Your task to perform on an android device: find snoozed emails in the gmail app Image 0: 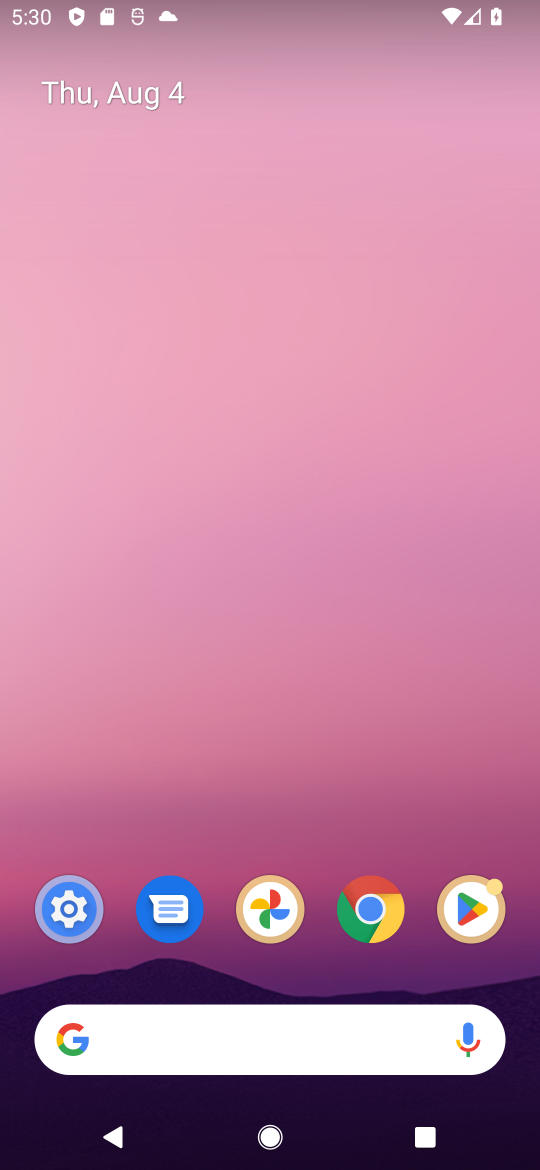
Step 0: drag from (193, 1045) to (363, 230)
Your task to perform on an android device: find snoozed emails in the gmail app Image 1: 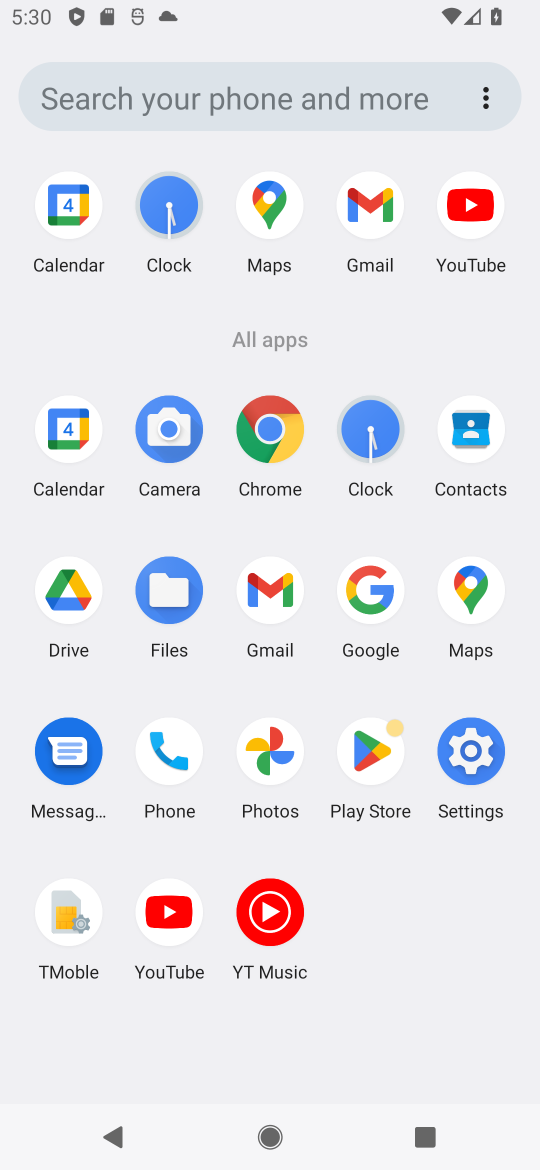
Step 1: click (371, 202)
Your task to perform on an android device: find snoozed emails in the gmail app Image 2: 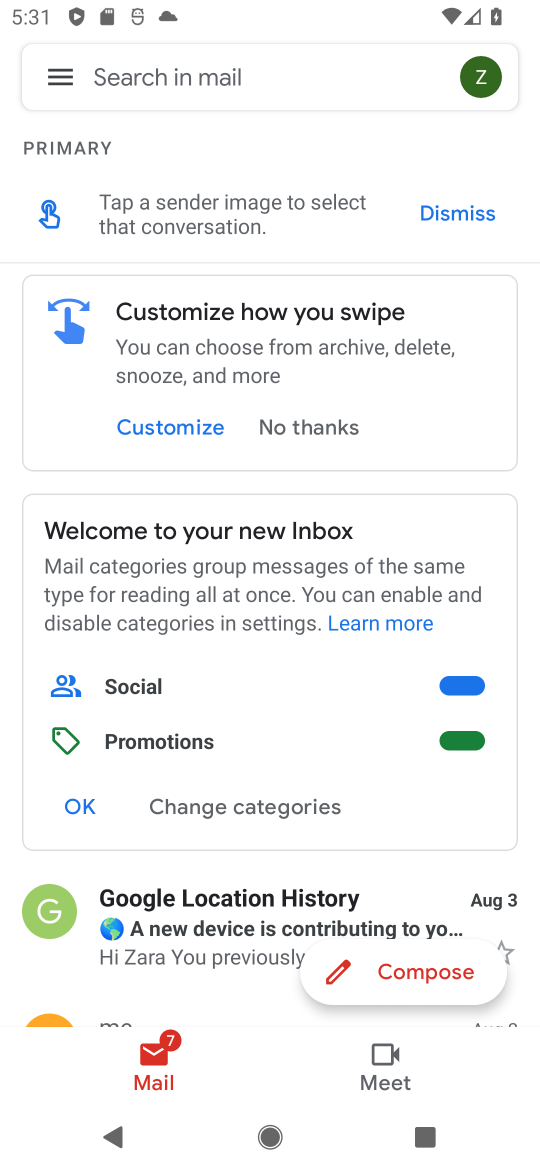
Step 2: drag from (202, 908) to (360, 432)
Your task to perform on an android device: find snoozed emails in the gmail app Image 3: 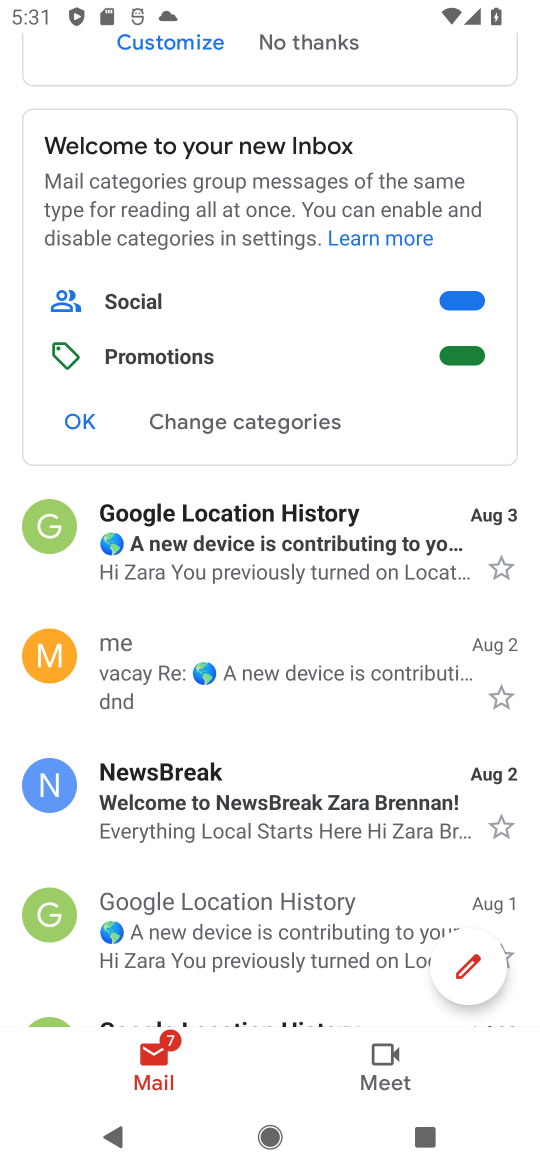
Step 3: drag from (258, 795) to (318, 567)
Your task to perform on an android device: find snoozed emails in the gmail app Image 4: 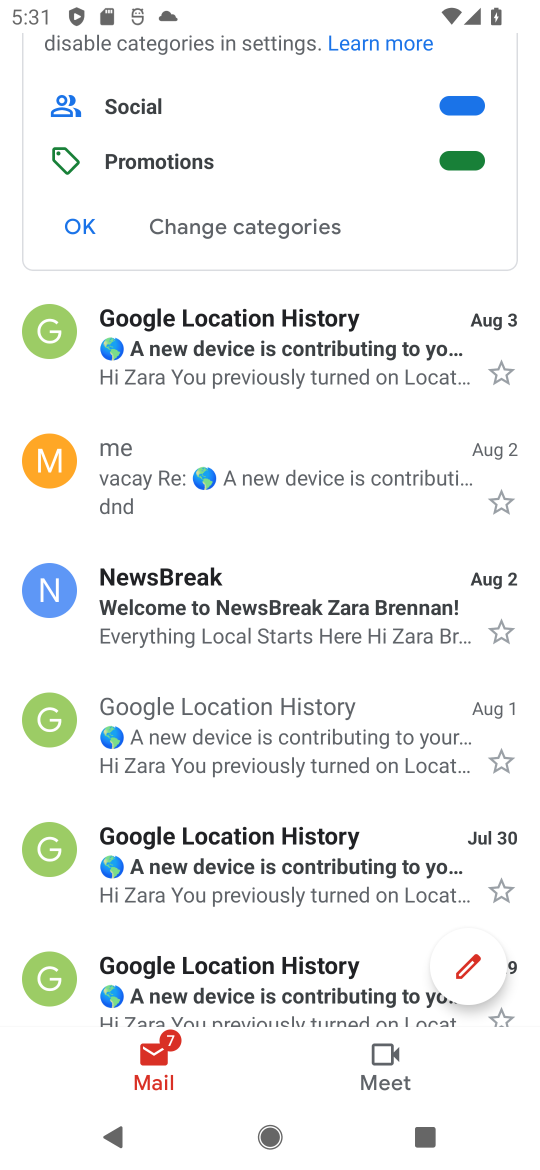
Step 4: drag from (252, 914) to (321, 550)
Your task to perform on an android device: find snoozed emails in the gmail app Image 5: 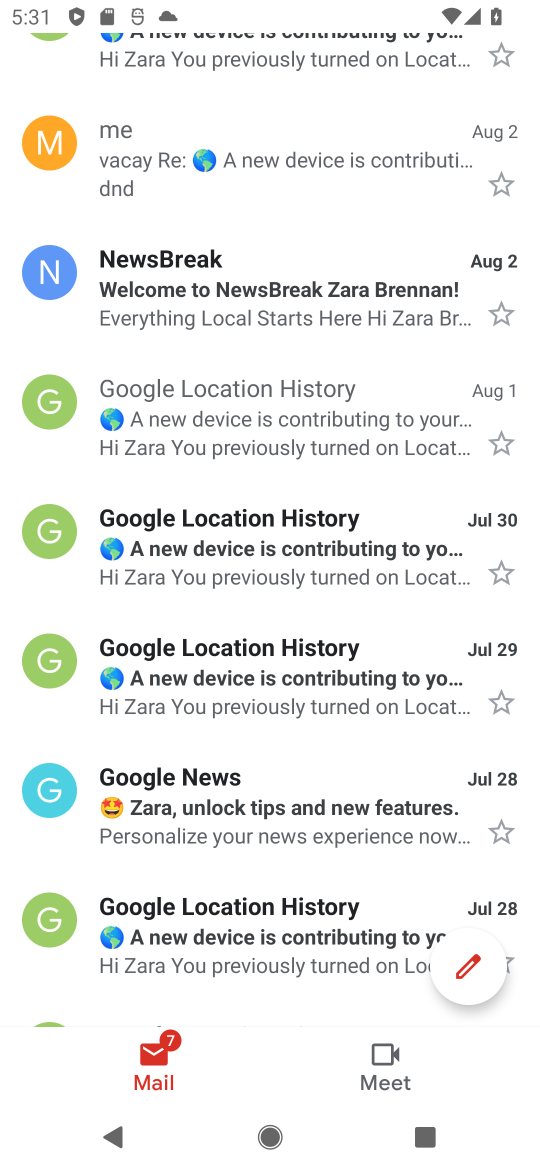
Step 5: drag from (266, 891) to (334, 485)
Your task to perform on an android device: find snoozed emails in the gmail app Image 6: 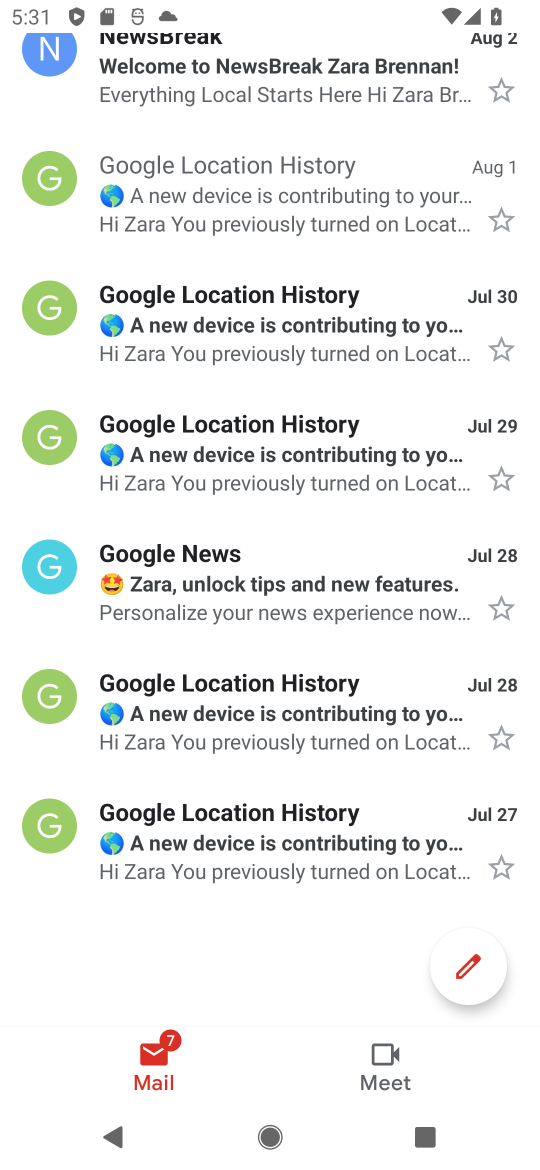
Step 6: drag from (177, 131) to (276, 715)
Your task to perform on an android device: find snoozed emails in the gmail app Image 7: 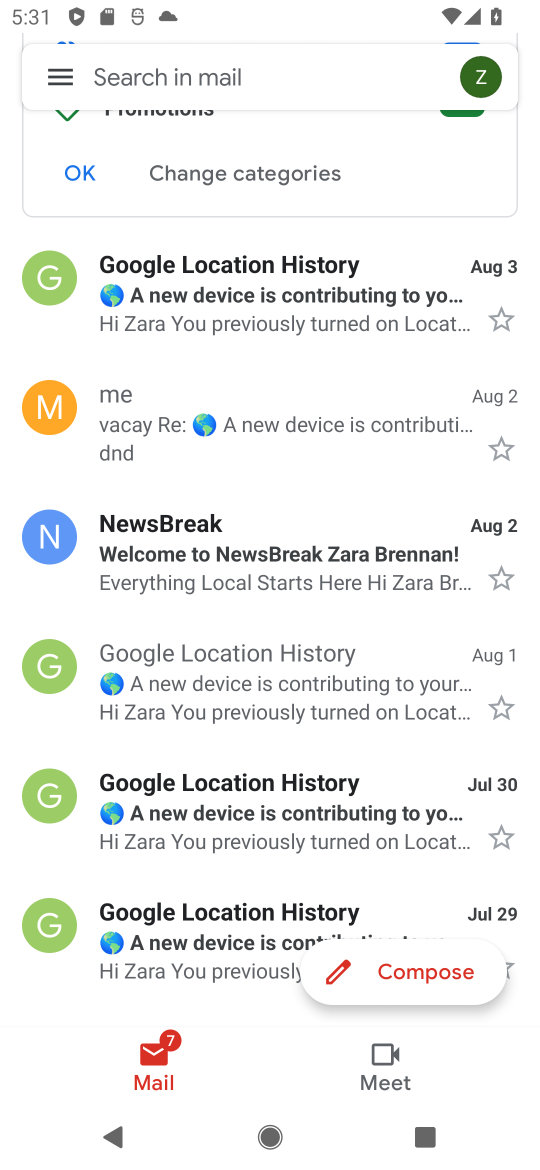
Step 7: click (62, 83)
Your task to perform on an android device: find snoozed emails in the gmail app Image 8: 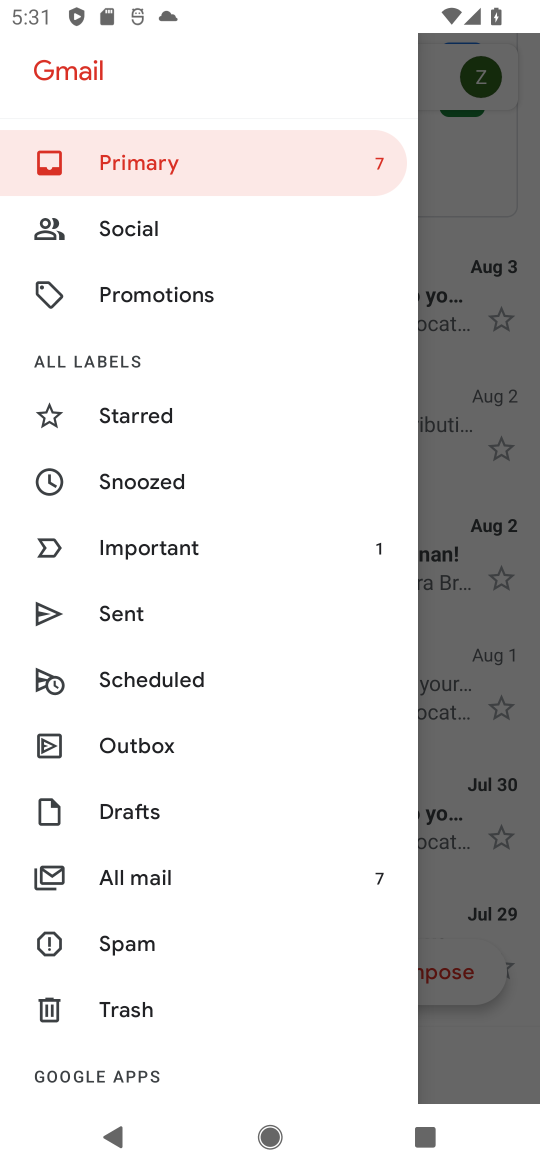
Step 8: click (169, 466)
Your task to perform on an android device: find snoozed emails in the gmail app Image 9: 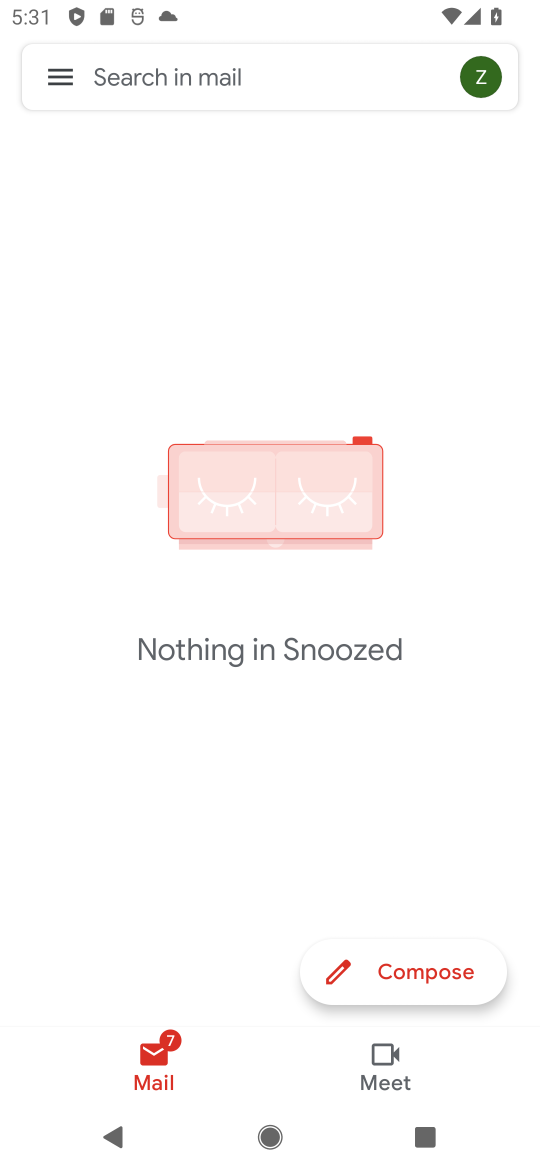
Step 9: click (45, 69)
Your task to perform on an android device: find snoozed emails in the gmail app Image 10: 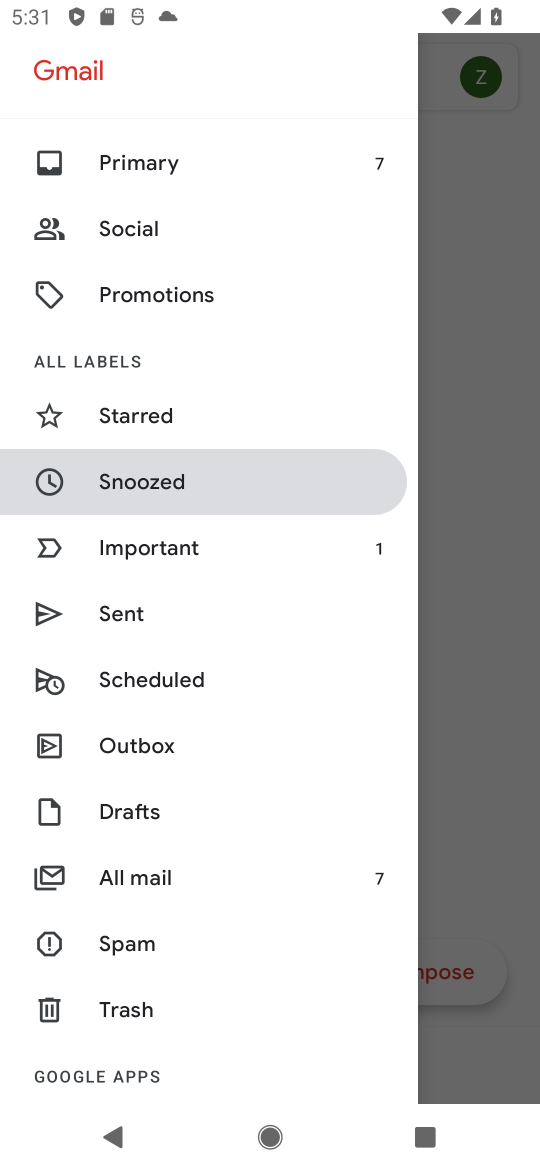
Step 10: task complete